Your task to perform on an android device: Show the shopping cart on target.com. Search for "acer predator" on target.com, select the first entry, and add it to the cart. Image 0: 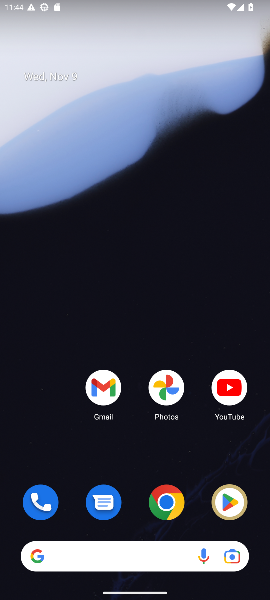
Step 0: drag from (127, 454) to (208, 70)
Your task to perform on an android device: Show the shopping cart on target.com. Search for "acer predator" on target.com, select the first entry, and add it to the cart. Image 1: 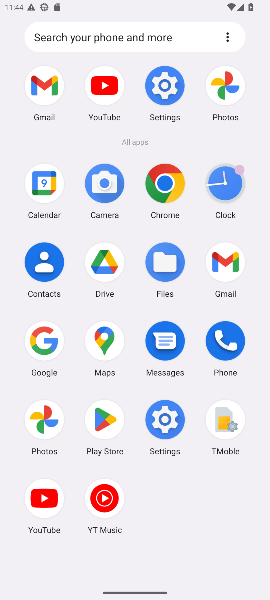
Step 1: click (166, 179)
Your task to perform on an android device: Show the shopping cart on target.com. Search for "acer predator" on target.com, select the first entry, and add it to the cart. Image 2: 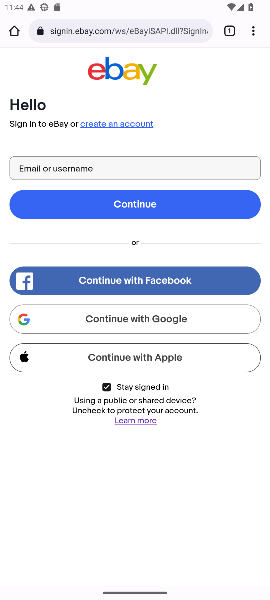
Step 2: click (151, 25)
Your task to perform on an android device: Show the shopping cart on target.com. Search for "acer predator" on target.com, select the first entry, and add it to the cart. Image 3: 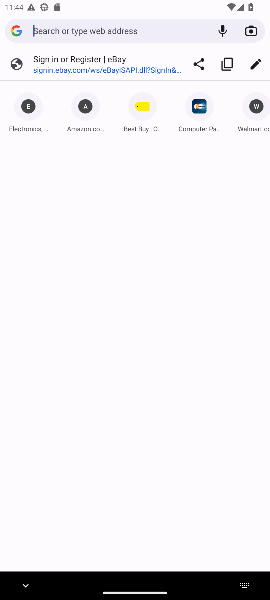
Step 3: type "target.com"
Your task to perform on an android device: Show the shopping cart on target.com. Search for "acer predator" on target.com, select the first entry, and add it to the cart. Image 4: 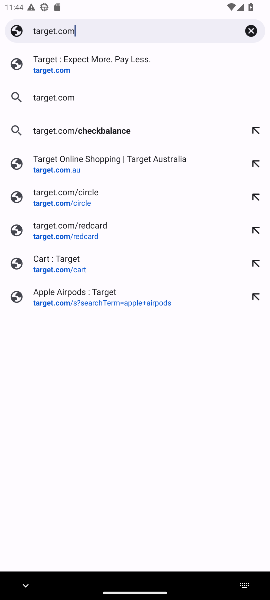
Step 4: press enter
Your task to perform on an android device: Show the shopping cart on target.com. Search for "acer predator" on target.com, select the first entry, and add it to the cart. Image 5: 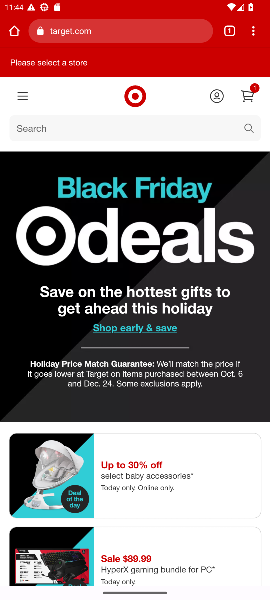
Step 5: click (249, 96)
Your task to perform on an android device: Show the shopping cart on target.com. Search for "acer predator" on target.com, select the first entry, and add it to the cart. Image 6: 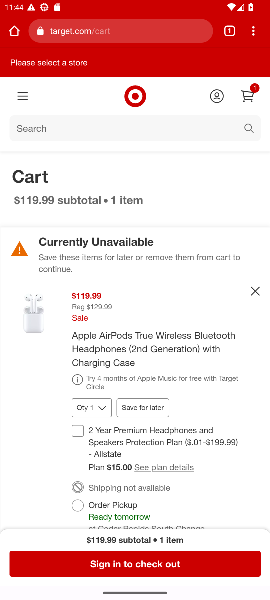
Step 6: click (140, 135)
Your task to perform on an android device: Show the shopping cart on target.com. Search for "acer predator" on target.com, select the first entry, and add it to the cart. Image 7: 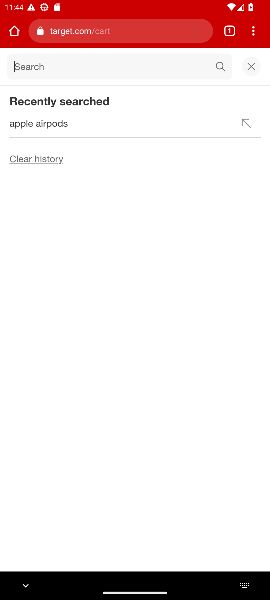
Step 7: type "acer predator"
Your task to perform on an android device: Show the shopping cart on target.com. Search for "acer predator" on target.com, select the first entry, and add it to the cart. Image 8: 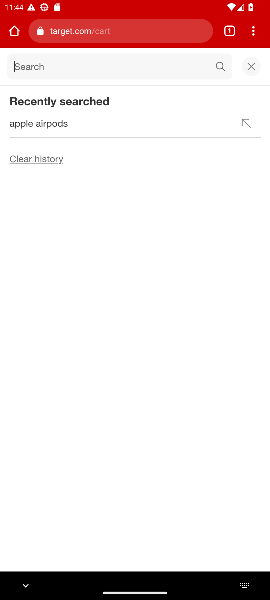
Step 8: press enter
Your task to perform on an android device: Show the shopping cart on target.com. Search for "acer predator" on target.com, select the first entry, and add it to the cart. Image 9: 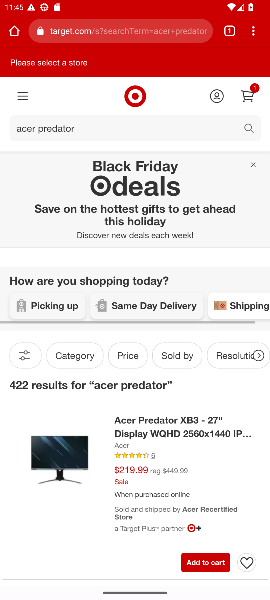
Step 9: drag from (183, 481) to (179, 274)
Your task to perform on an android device: Show the shopping cart on target.com. Search for "acer predator" on target.com, select the first entry, and add it to the cart. Image 10: 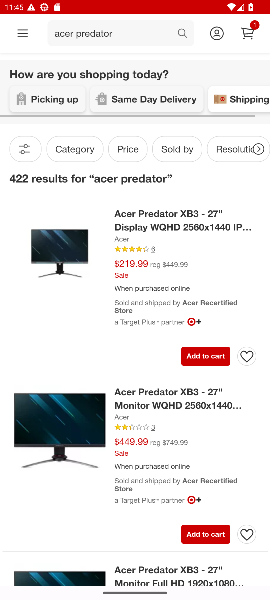
Step 10: click (209, 352)
Your task to perform on an android device: Show the shopping cart on target.com. Search for "acer predator" on target.com, select the first entry, and add it to the cart. Image 11: 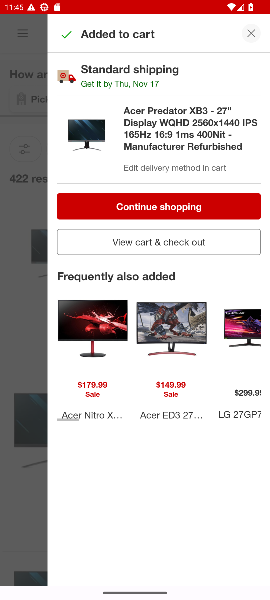
Step 11: task complete